Your task to perform on an android device: Go to Amazon Image 0: 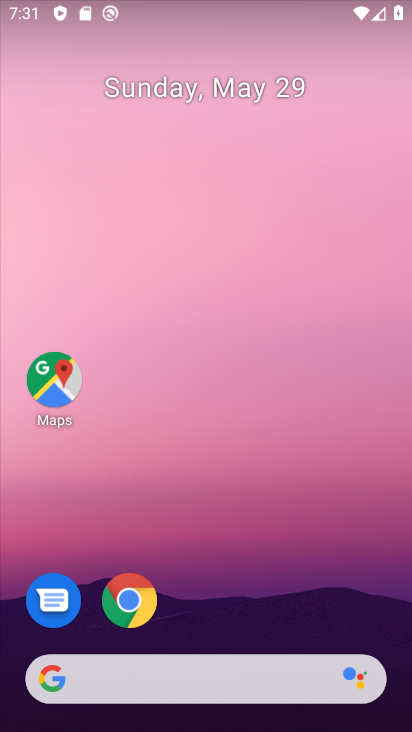
Step 0: click (115, 600)
Your task to perform on an android device: Go to Amazon Image 1: 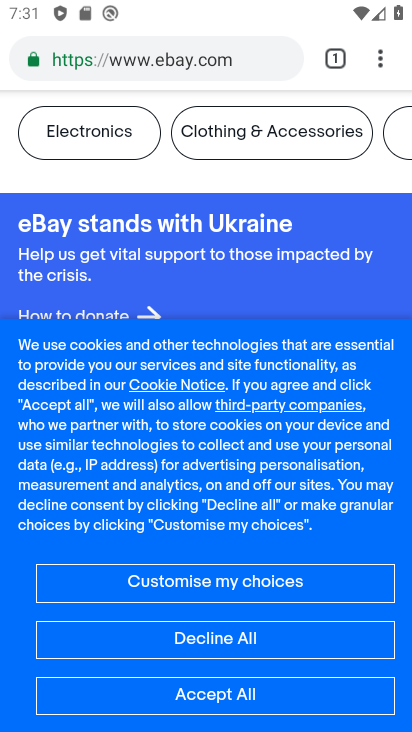
Step 1: click (217, 57)
Your task to perform on an android device: Go to Amazon Image 2: 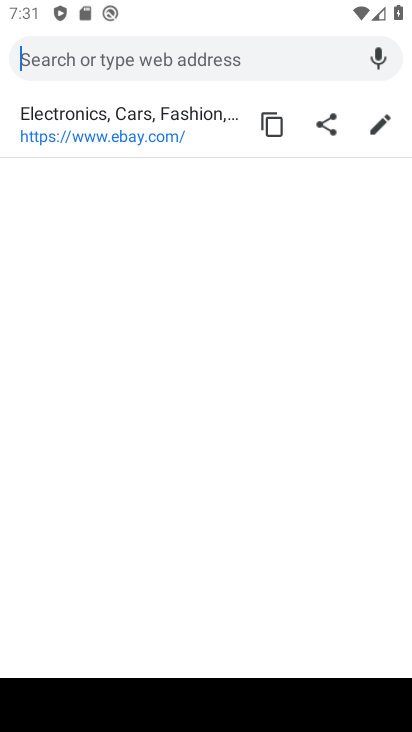
Step 2: type "Amazon"
Your task to perform on an android device: Go to Amazon Image 3: 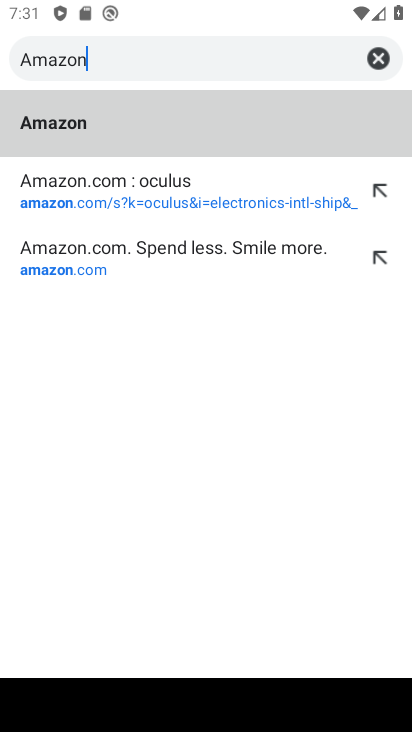
Step 3: click (145, 136)
Your task to perform on an android device: Go to Amazon Image 4: 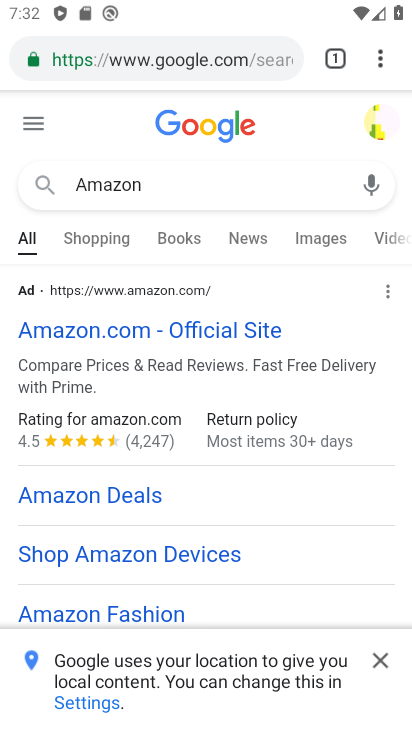
Step 4: task complete